Your task to perform on an android device: Open network settings Image 0: 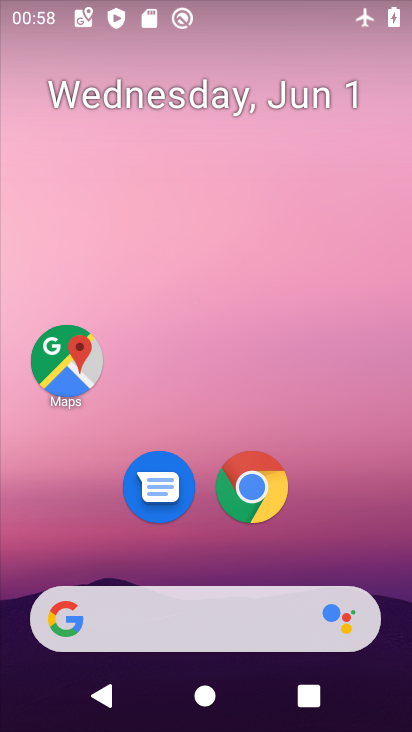
Step 0: drag from (330, 524) to (349, 119)
Your task to perform on an android device: Open network settings Image 1: 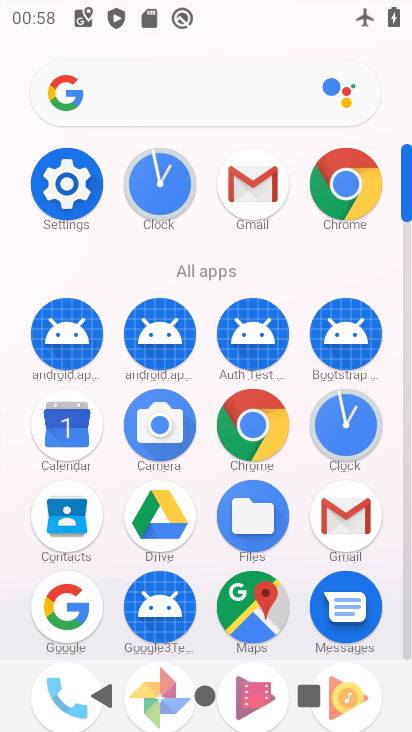
Step 1: click (56, 170)
Your task to perform on an android device: Open network settings Image 2: 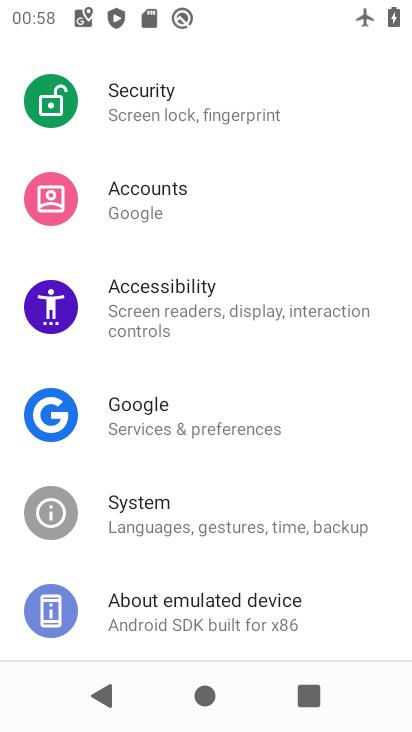
Step 2: drag from (238, 160) to (246, 621)
Your task to perform on an android device: Open network settings Image 3: 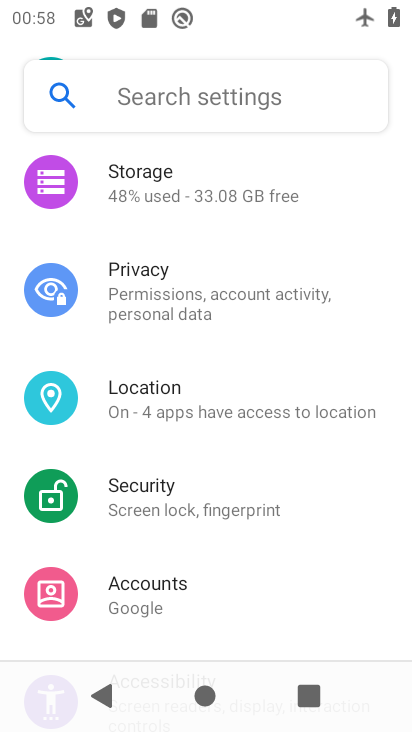
Step 3: drag from (243, 210) to (247, 611)
Your task to perform on an android device: Open network settings Image 4: 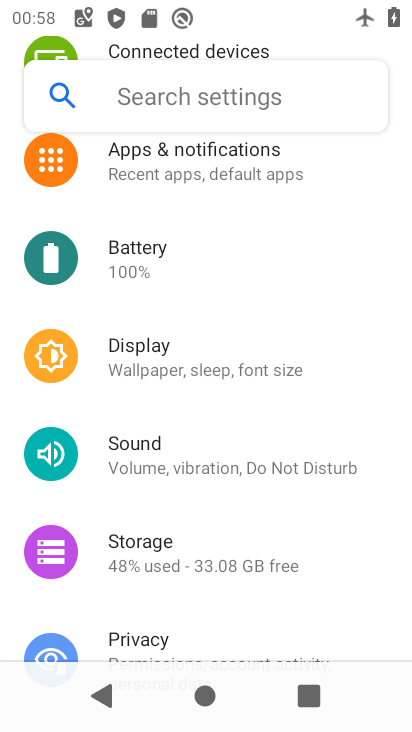
Step 4: drag from (262, 187) to (262, 624)
Your task to perform on an android device: Open network settings Image 5: 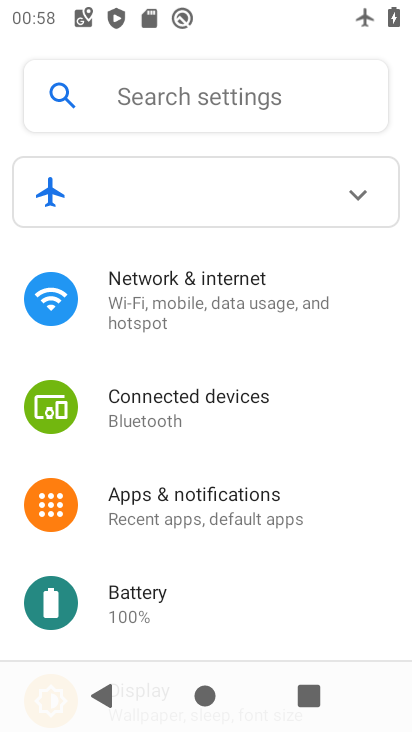
Step 5: click (224, 288)
Your task to perform on an android device: Open network settings Image 6: 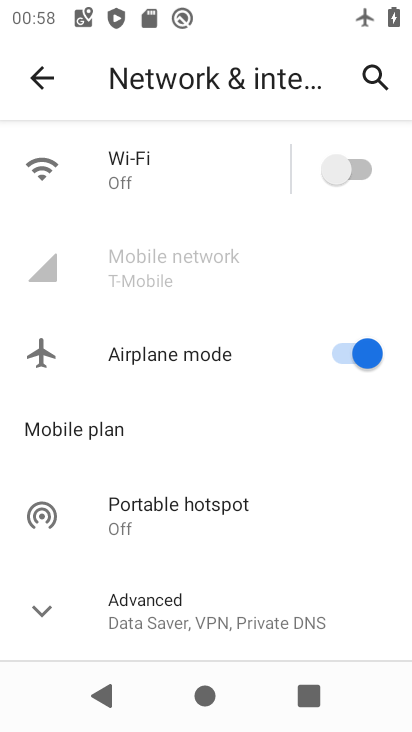
Step 6: task complete